Your task to perform on an android device: Search for vegetarian restaurants on Maps Image 0: 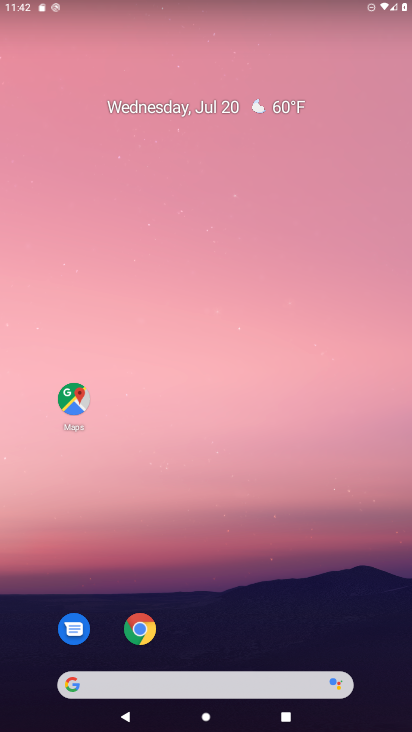
Step 0: click (79, 397)
Your task to perform on an android device: Search for vegetarian restaurants on Maps Image 1: 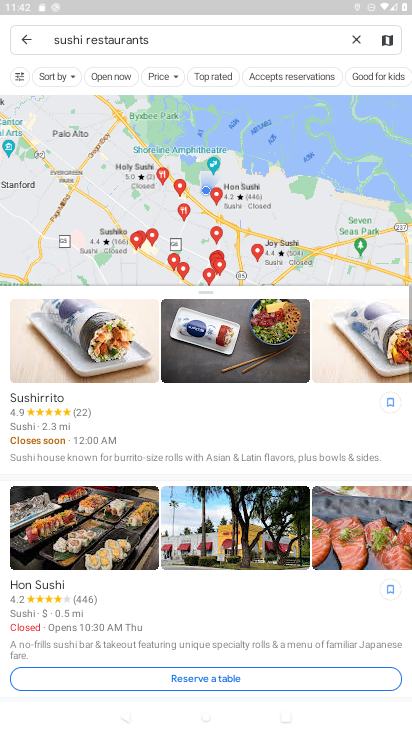
Step 1: click (349, 44)
Your task to perform on an android device: Search for vegetarian restaurants on Maps Image 2: 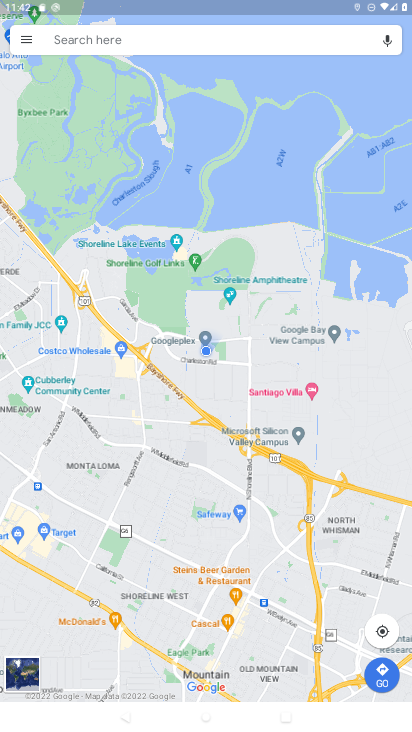
Step 2: type "vegetarian restaurants"
Your task to perform on an android device: Search for vegetarian restaurants on Maps Image 3: 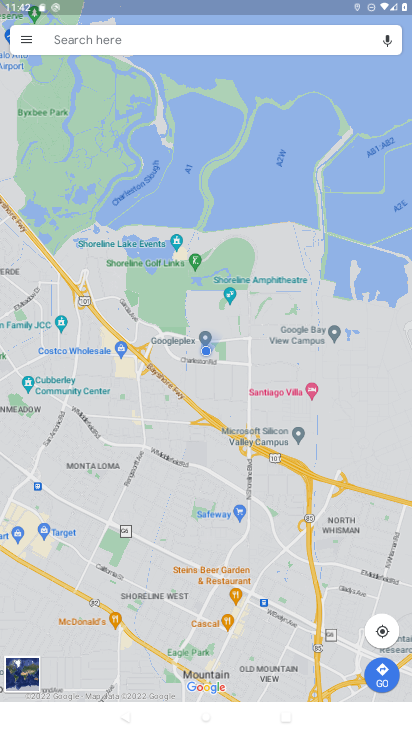
Step 3: click (130, 47)
Your task to perform on an android device: Search for vegetarian restaurants on Maps Image 4: 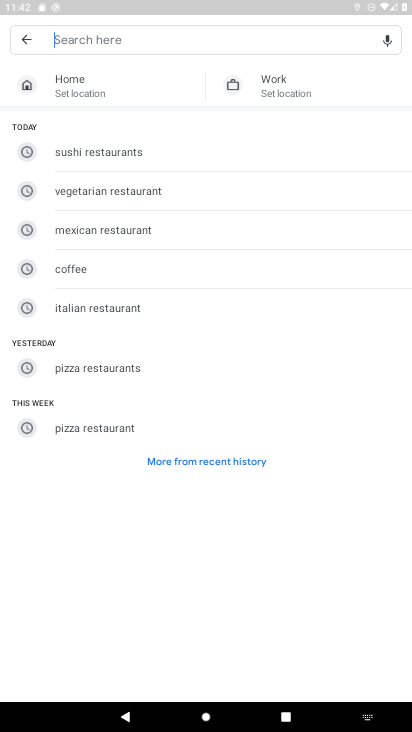
Step 4: type "vegetarian restaurants"
Your task to perform on an android device: Search for vegetarian restaurants on Maps Image 5: 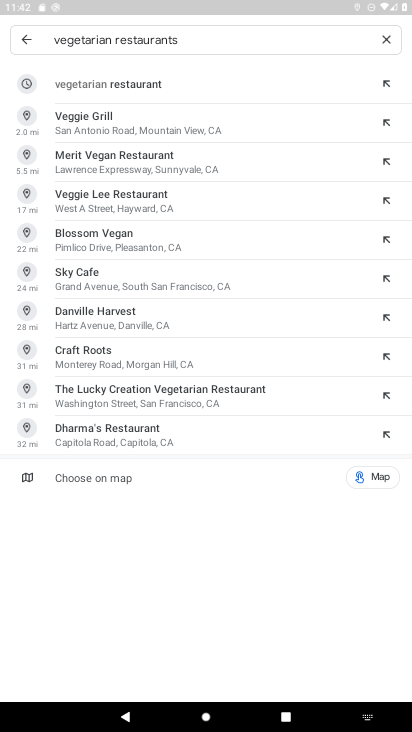
Step 5: click (200, 97)
Your task to perform on an android device: Search for vegetarian restaurants on Maps Image 6: 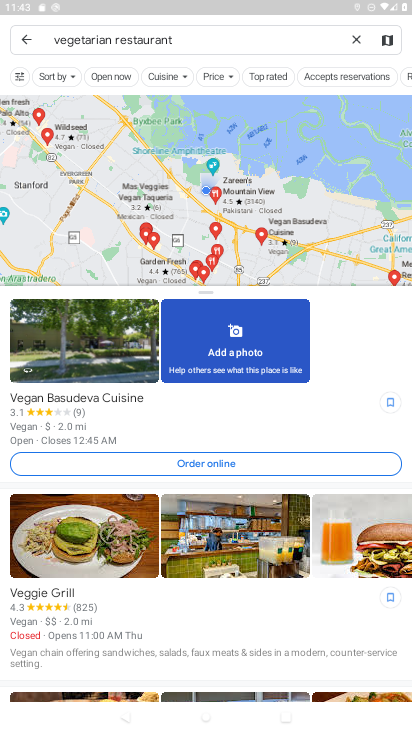
Step 6: task complete